Your task to perform on an android device: What's the weather going to be tomorrow? Image 0: 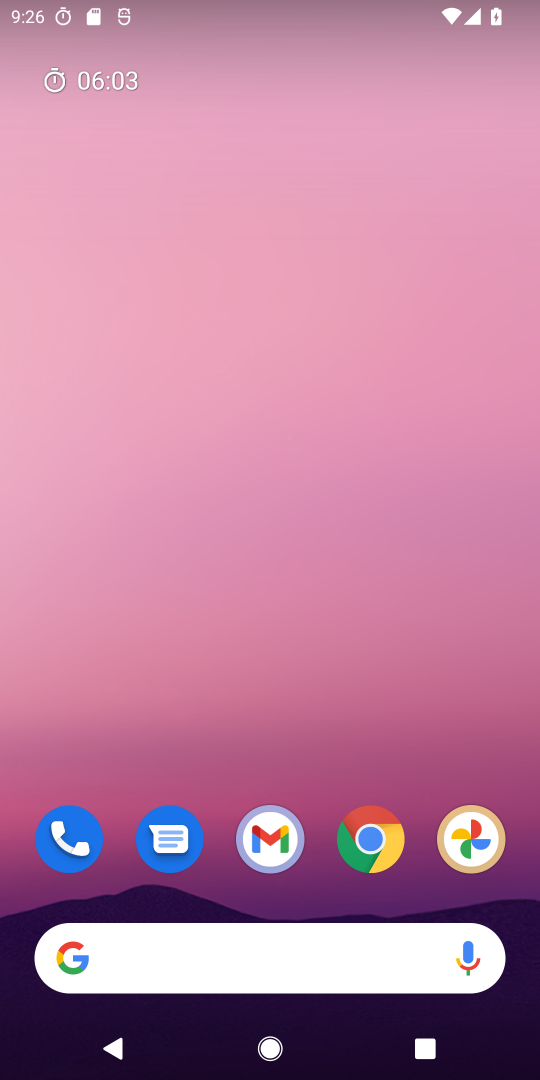
Step 0: press home button
Your task to perform on an android device: What's the weather going to be tomorrow? Image 1: 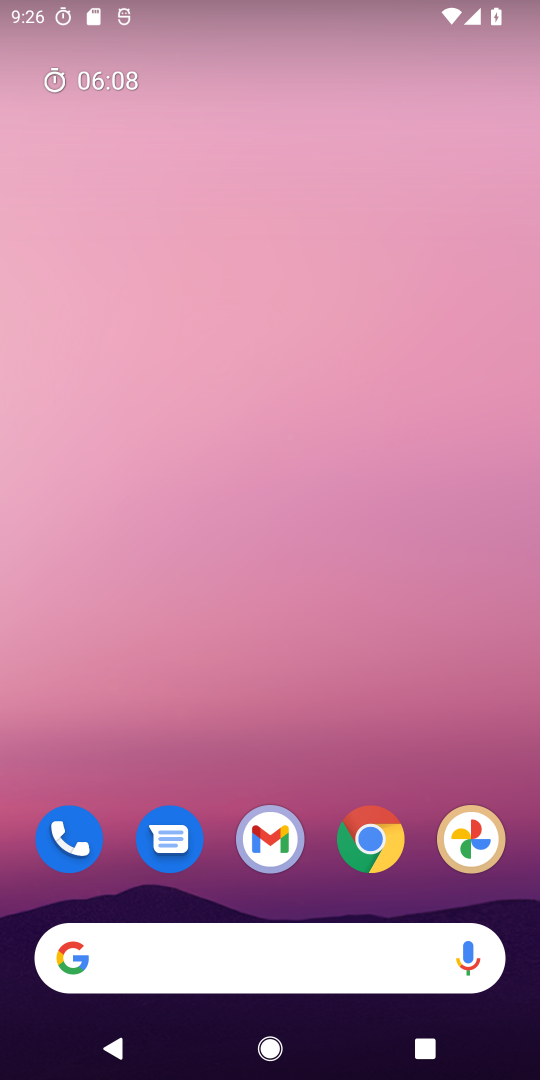
Step 1: click (221, 962)
Your task to perform on an android device: What's the weather going to be tomorrow? Image 2: 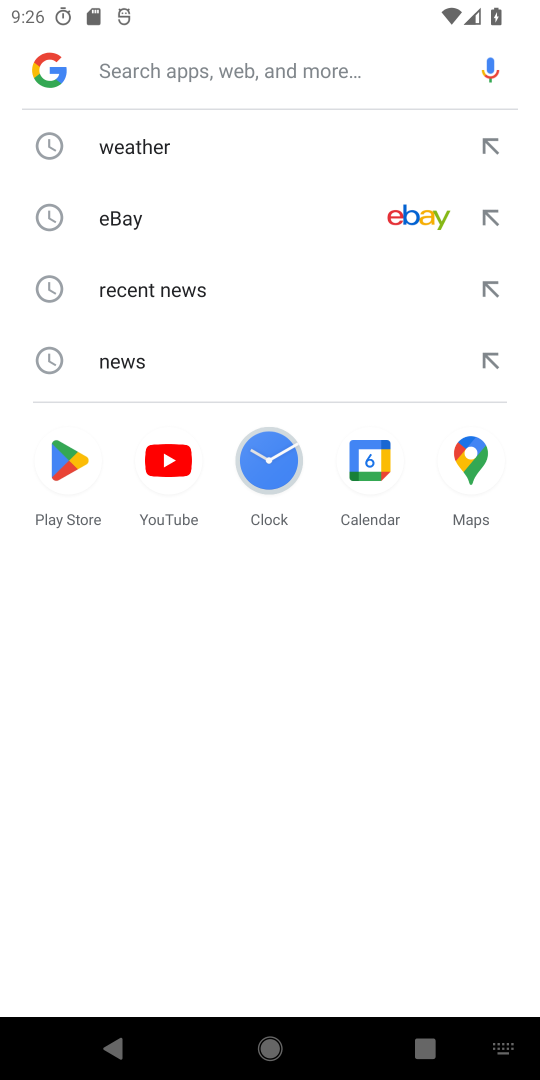
Step 2: click (157, 142)
Your task to perform on an android device: What's the weather going to be tomorrow? Image 3: 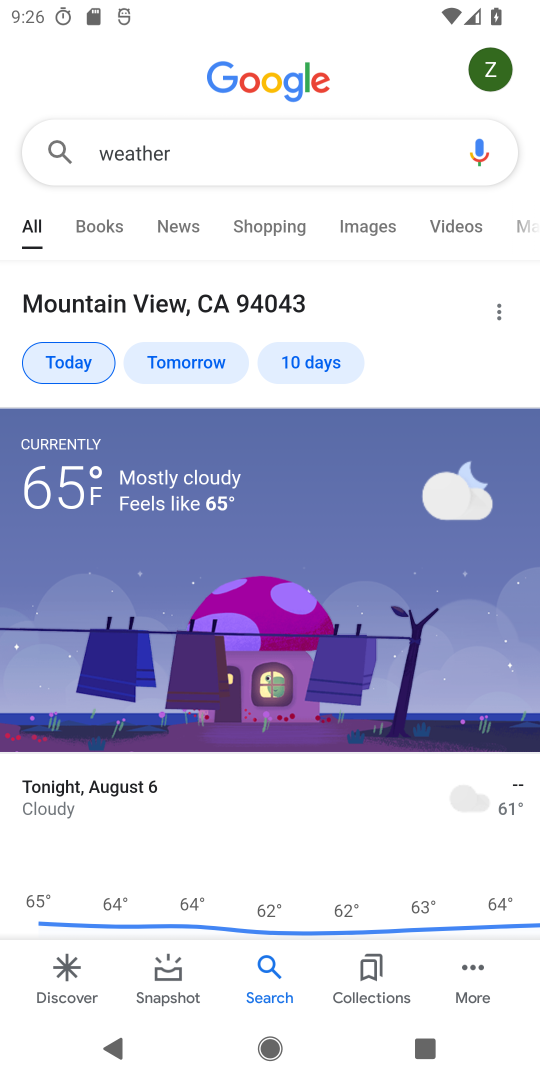
Step 3: drag from (286, 889) to (282, 399)
Your task to perform on an android device: What's the weather going to be tomorrow? Image 4: 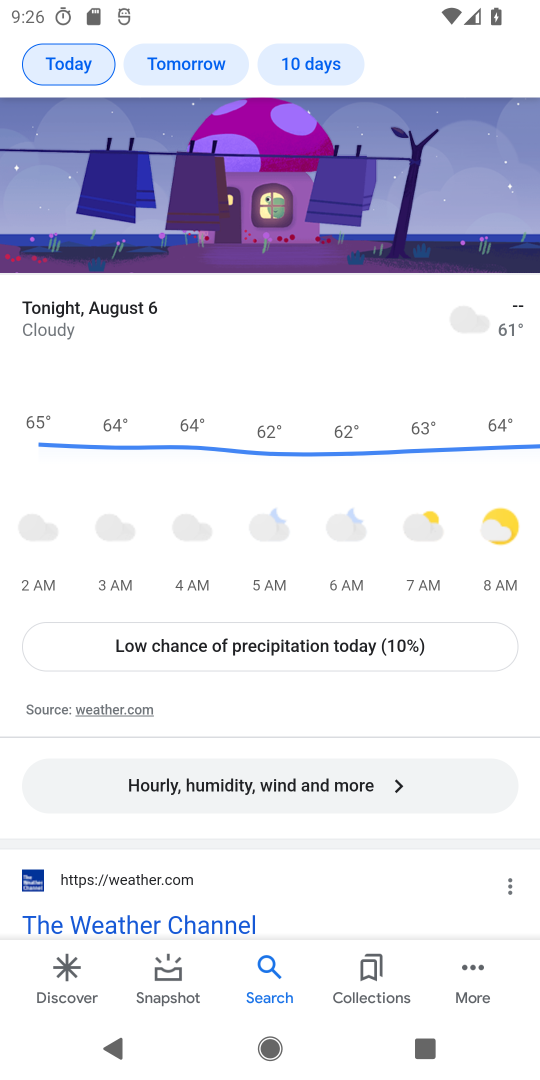
Step 4: click (169, 59)
Your task to perform on an android device: What's the weather going to be tomorrow? Image 5: 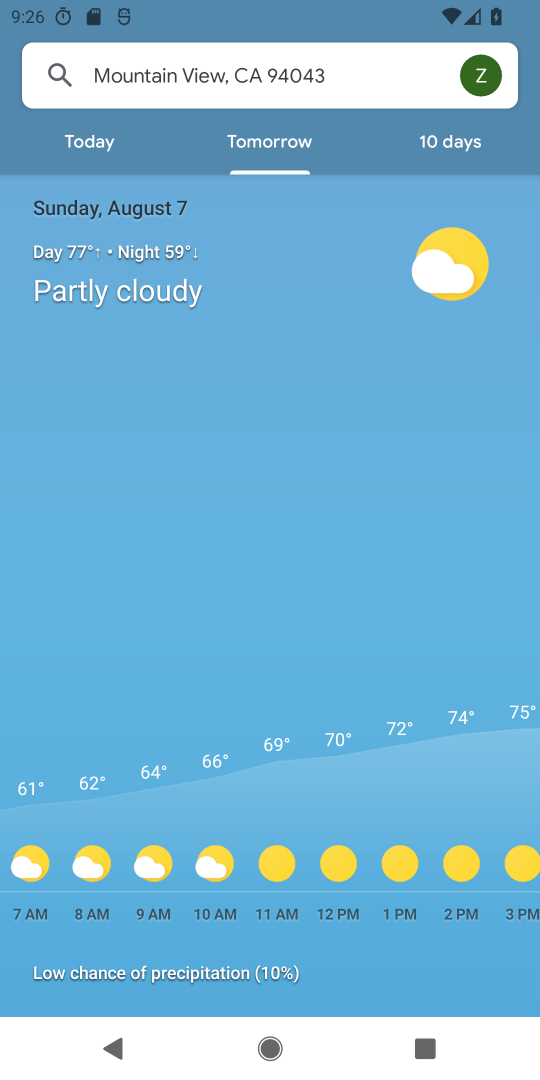
Step 5: drag from (519, 859) to (113, 854)
Your task to perform on an android device: What's the weather going to be tomorrow? Image 6: 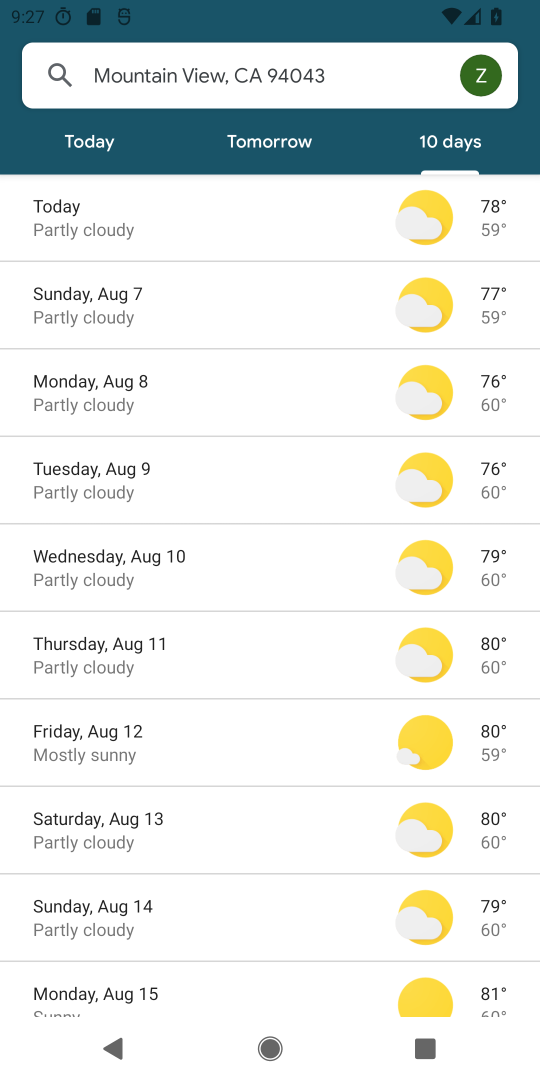
Step 6: click (253, 145)
Your task to perform on an android device: What's the weather going to be tomorrow? Image 7: 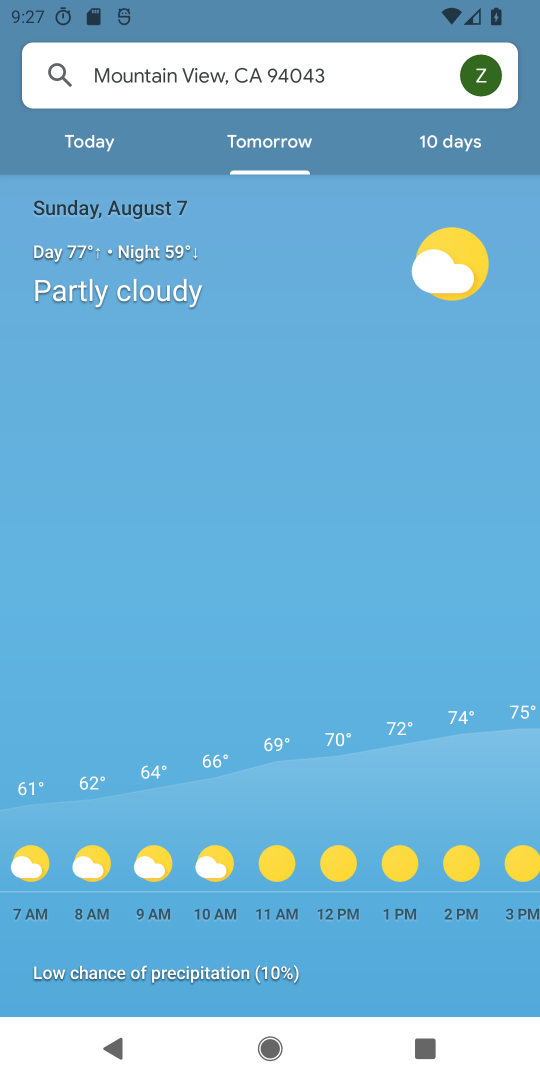
Step 7: task complete